Your task to perform on an android device: Go to battery settings Image 0: 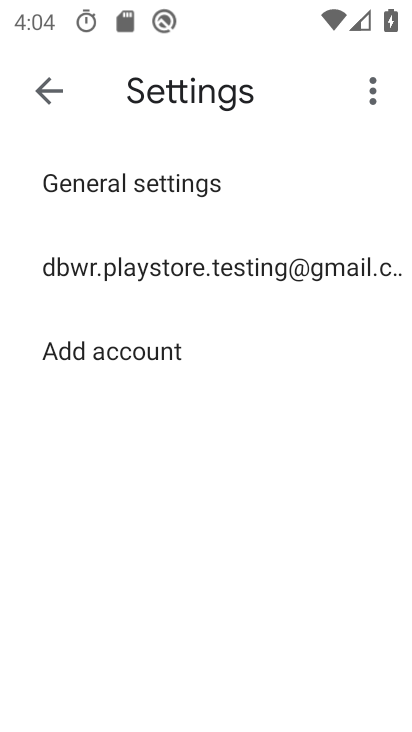
Step 0: press back button
Your task to perform on an android device: Go to battery settings Image 1: 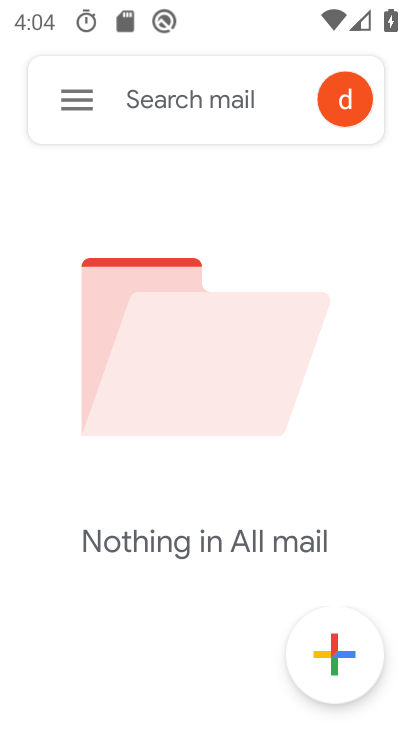
Step 1: press home button
Your task to perform on an android device: Go to battery settings Image 2: 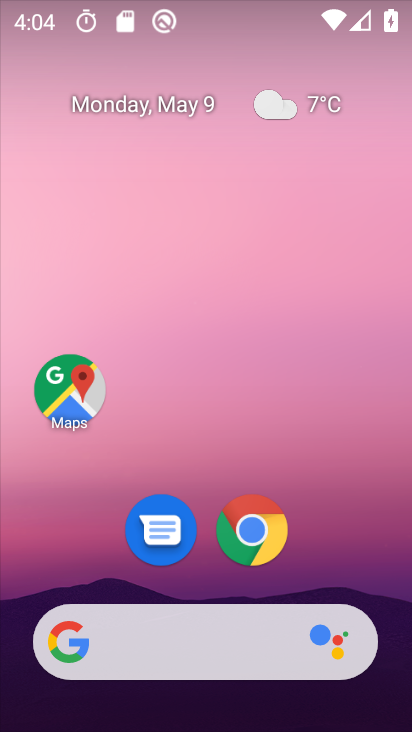
Step 2: drag from (191, 554) to (319, 17)
Your task to perform on an android device: Go to battery settings Image 3: 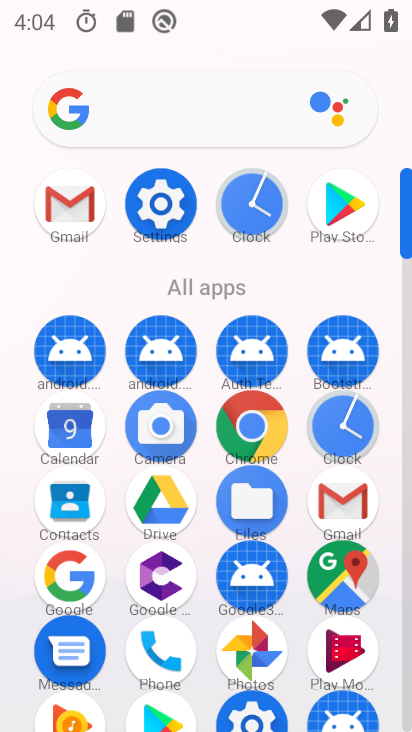
Step 3: click (155, 198)
Your task to perform on an android device: Go to battery settings Image 4: 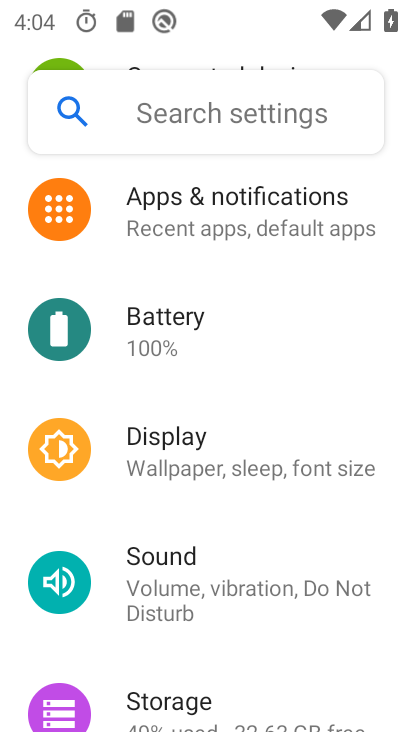
Step 4: click (143, 325)
Your task to perform on an android device: Go to battery settings Image 5: 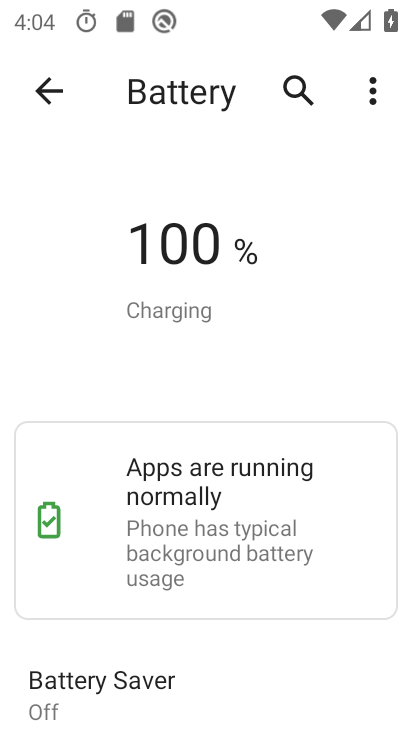
Step 5: task complete